Your task to perform on an android device: Open privacy settings Image 0: 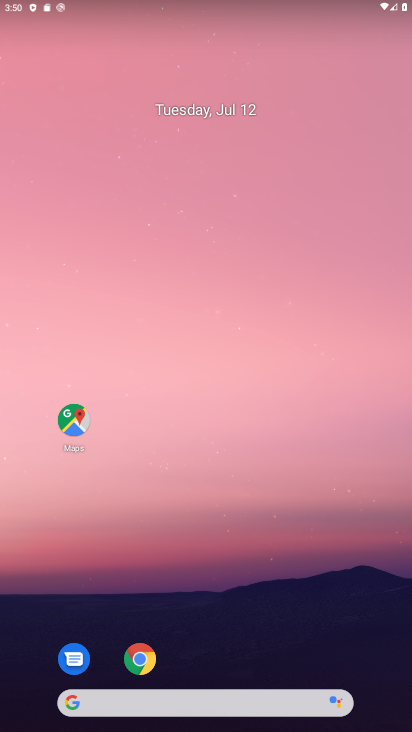
Step 0: drag from (221, 575) to (170, 171)
Your task to perform on an android device: Open privacy settings Image 1: 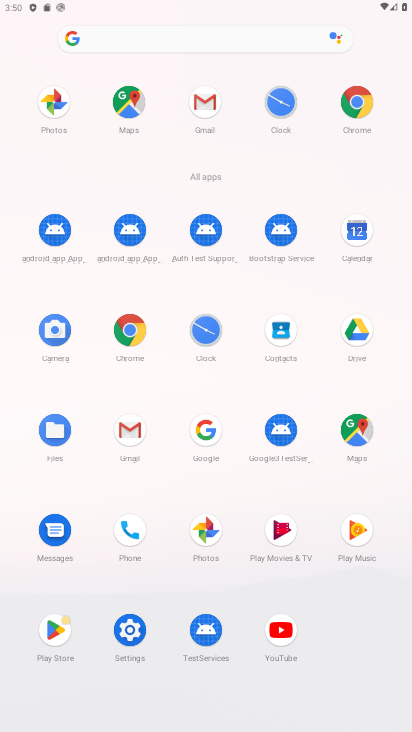
Step 1: click (124, 631)
Your task to perform on an android device: Open privacy settings Image 2: 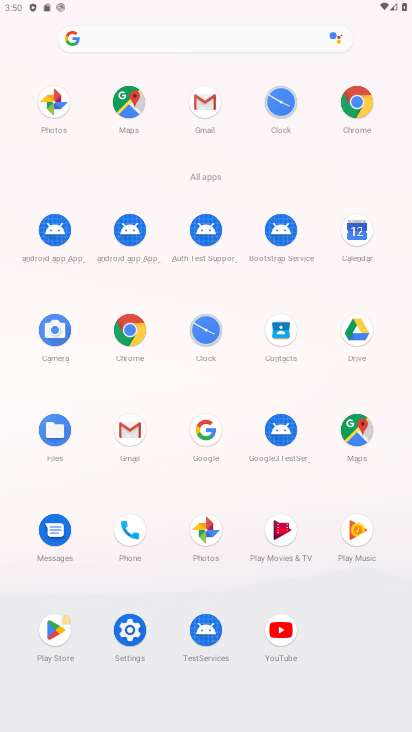
Step 2: click (131, 633)
Your task to perform on an android device: Open privacy settings Image 3: 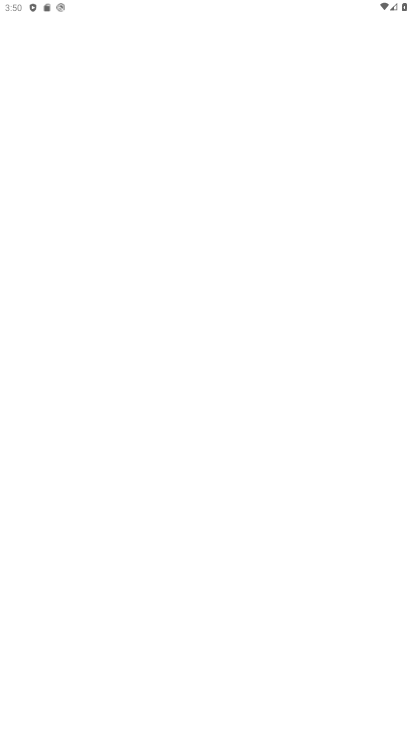
Step 3: click (126, 616)
Your task to perform on an android device: Open privacy settings Image 4: 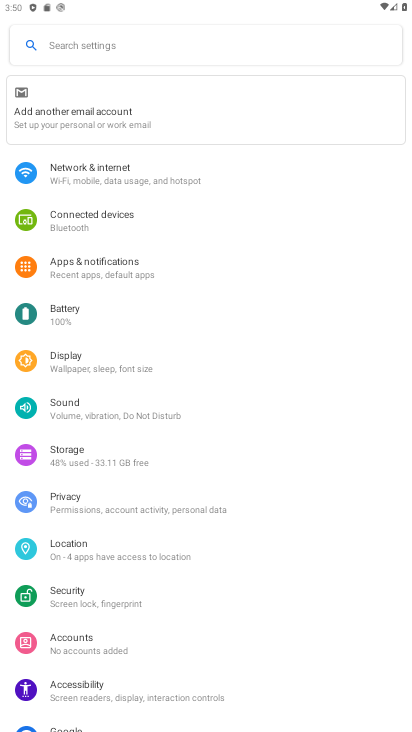
Step 4: click (59, 499)
Your task to perform on an android device: Open privacy settings Image 5: 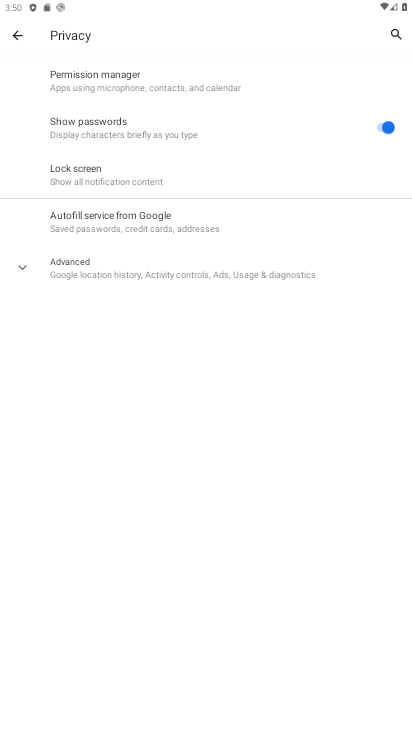
Step 5: drag from (60, 499) to (283, 564)
Your task to perform on an android device: Open privacy settings Image 6: 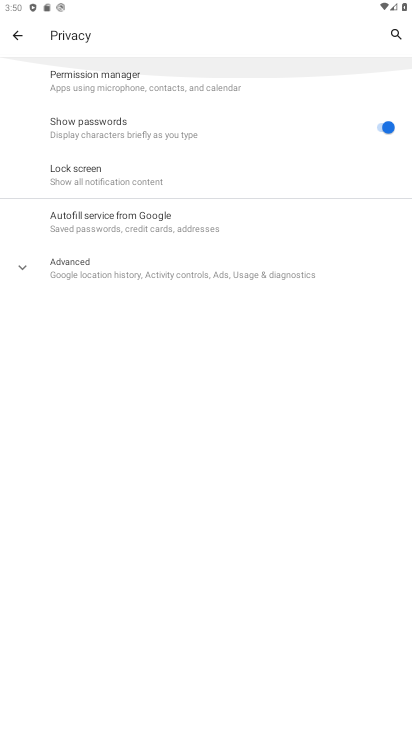
Step 6: click (161, 517)
Your task to perform on an android device: Open privacy settings Image 7: 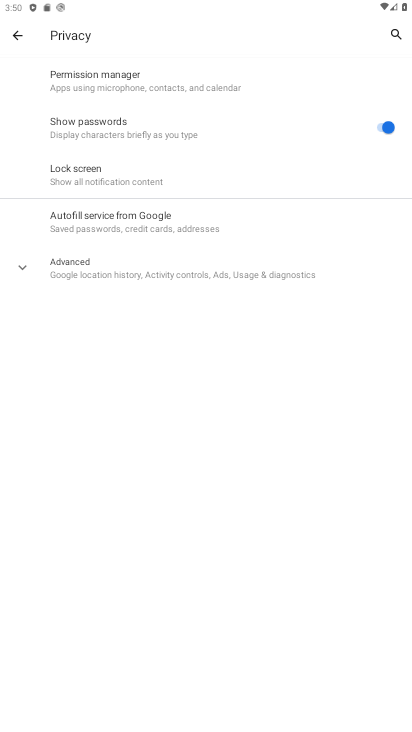
Step 7: click (164, 481)
Your task to perform on an android device: Open privacy settings Image 8: 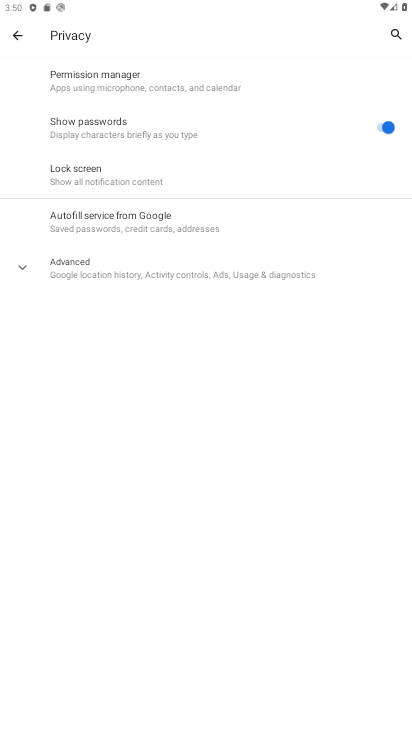
Step 8: click (67, 495)
Your task to perform on an android device: Open privacy settings Image 9: 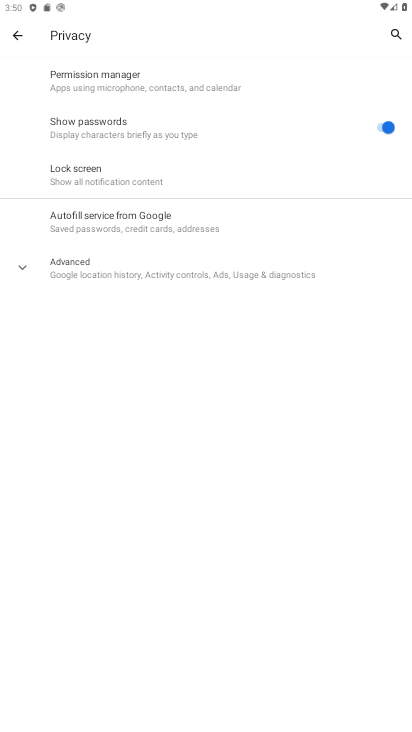
Step 9: click (79, 503)
Your task to perform on an android device: Open privacy settings Image 10: 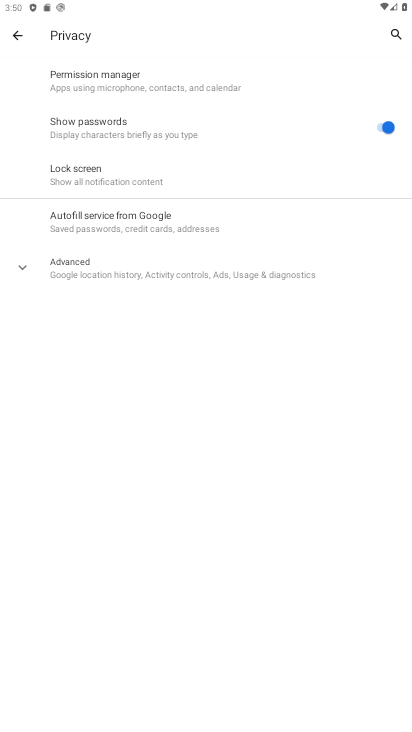
Step 10: task complete